Your task to perform on an android device: turn on priority inbox in the gmail app Image 0: 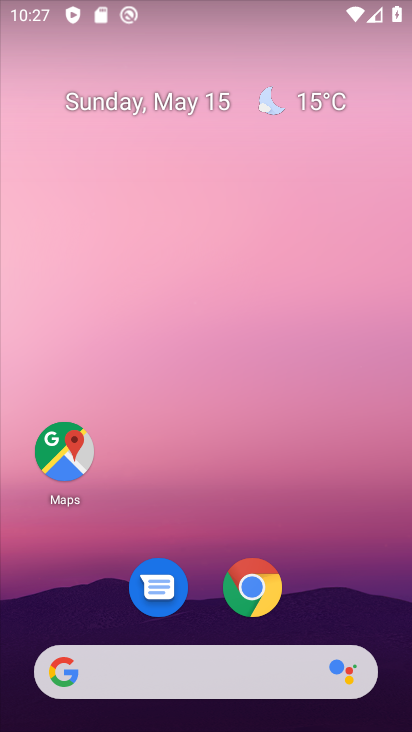
Step 0: drag from (90, 641) to (218, 79)
Your task to perform on an android device: turn on priority inbox in the gmail app Image 1: 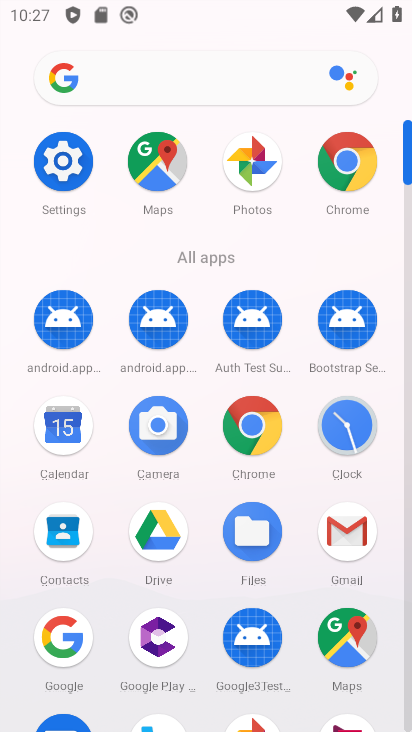
Step 1: click (350, 550)
Your task to perform on an android device: turn on priority inbox in the gmail app Image 2: 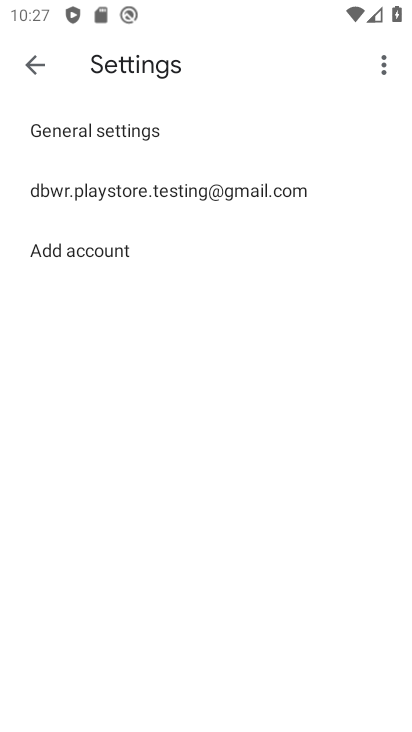
Step 2: click (169, 205)
Your task to perform on an android device: turn on priority inbox in the gmail app Image 3: 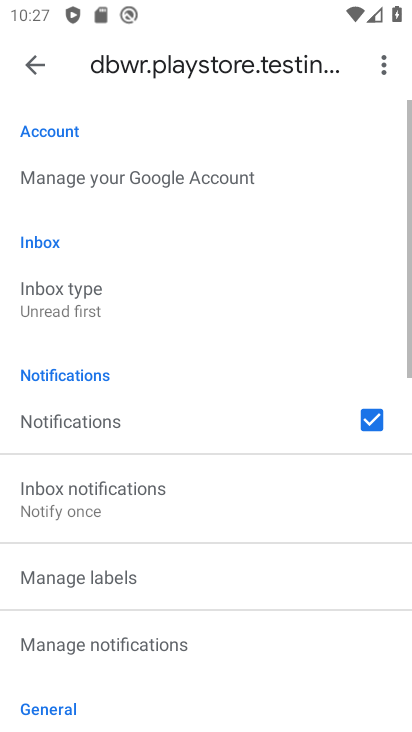
Step 3: drag from (201, 611) to (296, 180)
Your task to perform on an android device: turn on priority inbox in the gmail app Image 4: 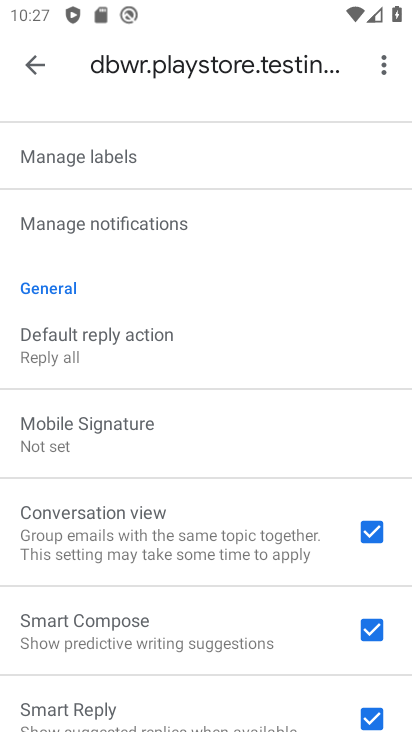
Step 4: drag from (181, 577) to (146, 642)
Your task to perform on an android device: turn on priority inbox in the gmail app Image 5: 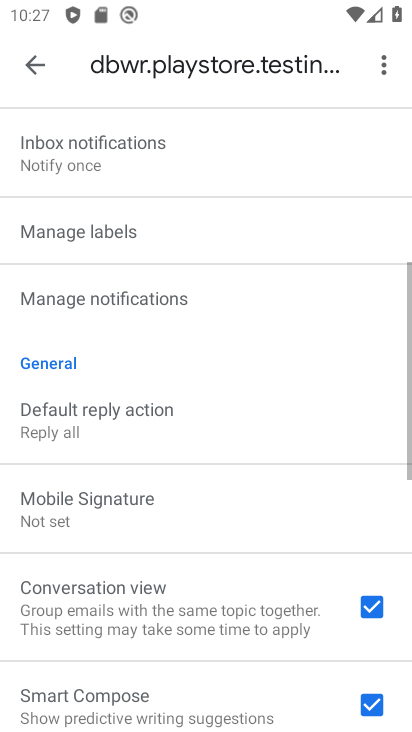
Step 5: drag from (180, 337) to (101, 604)
Your task to perform on an android device: turn on priority inbox in the gmail app Image 6: 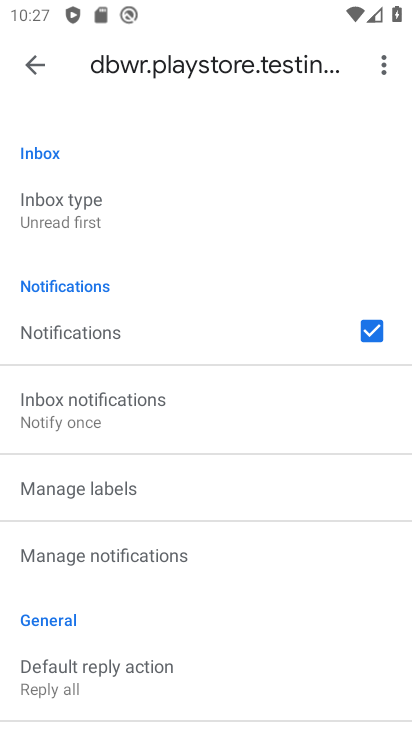
Step 6: click (151, 205)
Your task to perform on an android device: turn on priority inbox in the gmail app Image 7: 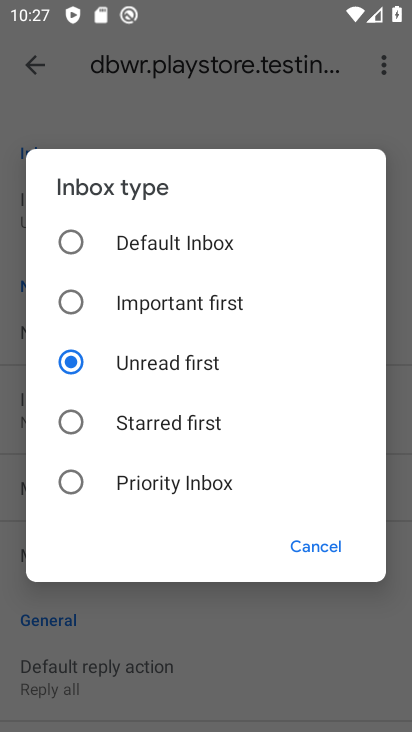
Step 7: click (203, 491)
Your task to perform on an android device: turn on priority inbox in the gmail app Image 8: 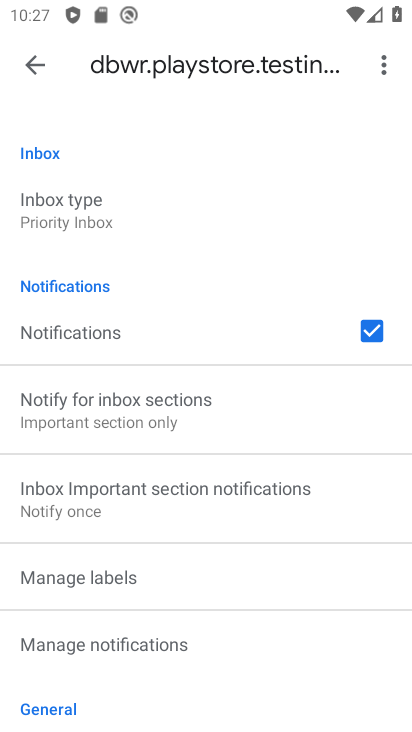
Step 8: task complete